Your task to perform on an android device: Open location settings Image 0: 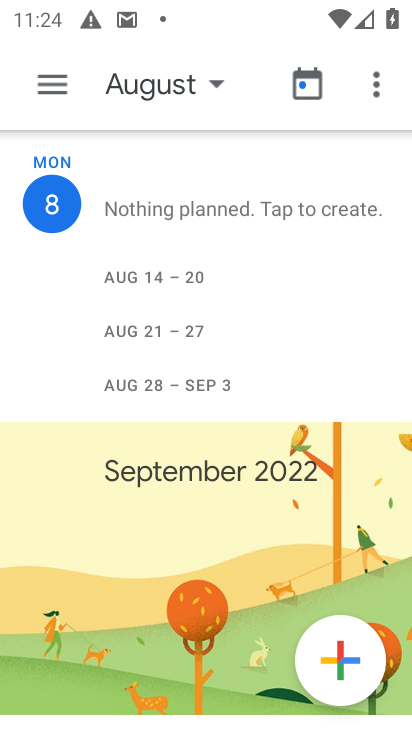
Step 0: press home button
Your task to perform on an android device: Open location settings Image 1: 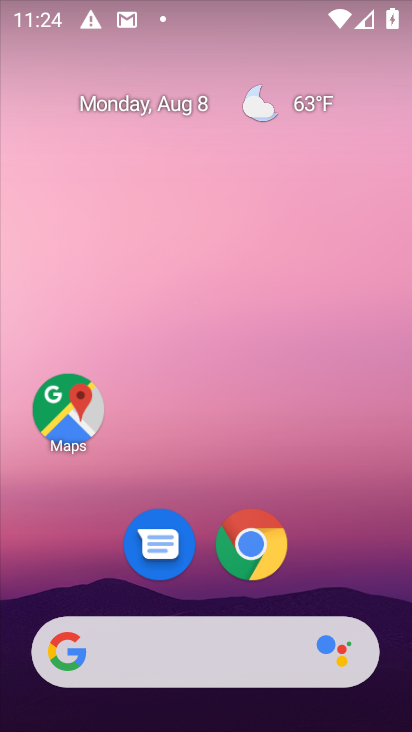
Step 1: drag from (201, 640) to (324, 23)
Your task to perform on an android device: Open location settings Image 2: 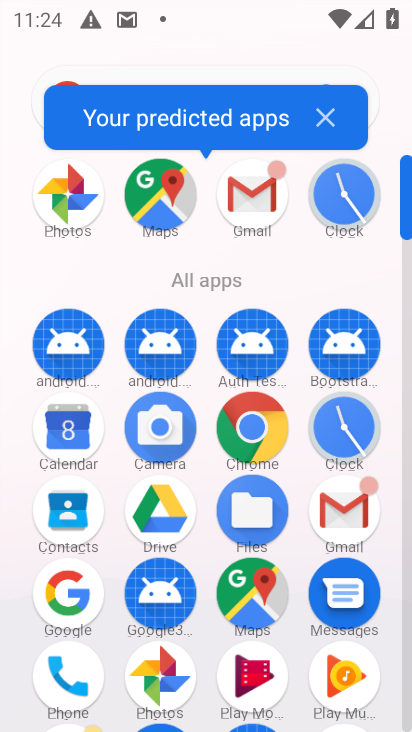
Step 2: drag from (299, 304) to (331, 147)
Your task to perform on an android device: Open location settings Image 3: 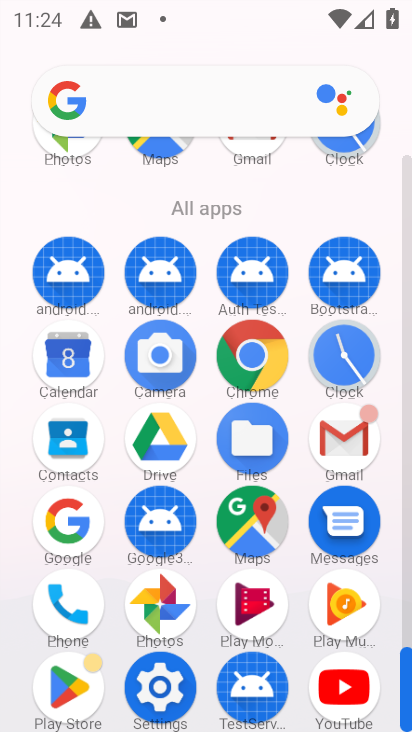
Step 3: click (161, 689)
Your task to perform on an android device: Open location settings Image 4: 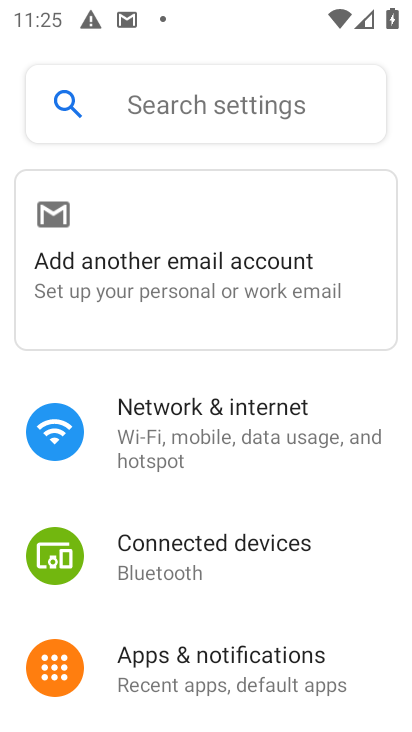
Step 4: drag from (155, 596) to (259, 454)
Your task to perform on an android device: Open location settings Image 5: 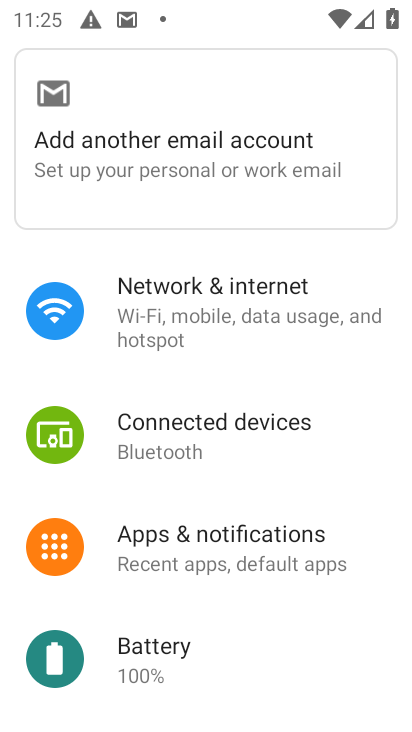
Step 5: drag from (194, 596) to (293, 464)
Your task to perform on an android device: Open location settings Image 6: 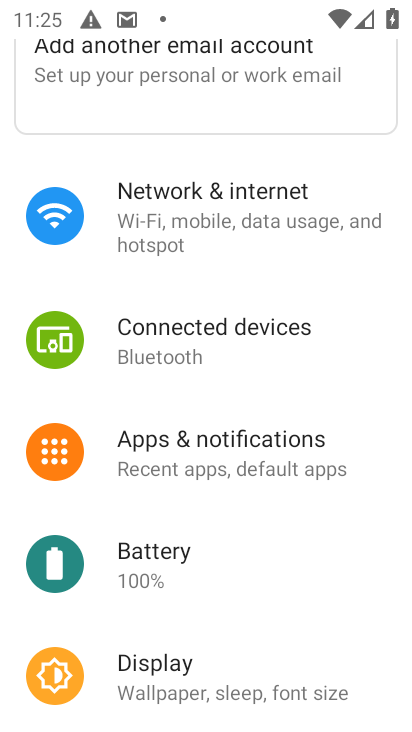
Step 6: drag from (192, 611) to (295, 465)
Your task to perform on an android device: Open location settings Image 7: 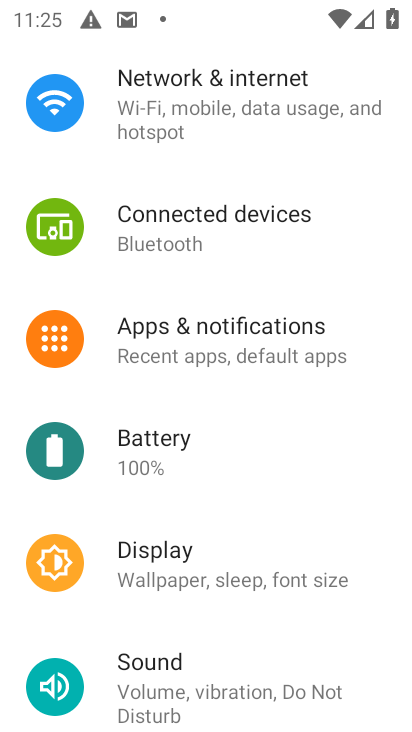
Step 7: drag from (200, 602) to (292, 455)
Your task to perform on an android device: Open location settings Image 8: 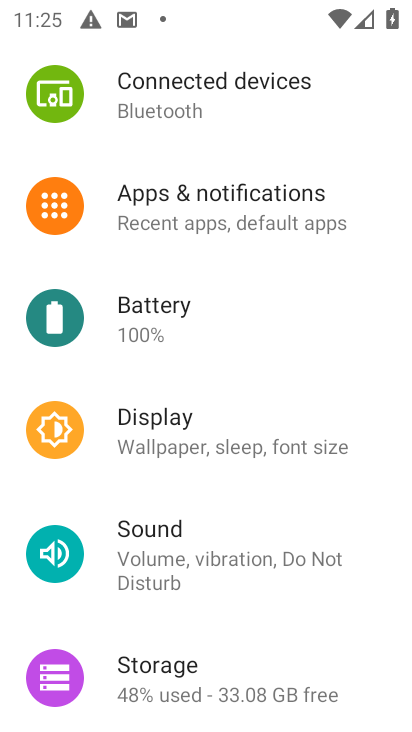
Step 8: drag from (197, 628) to (313, 443)
Your task to perform on an android device: Open location settings Image 9: 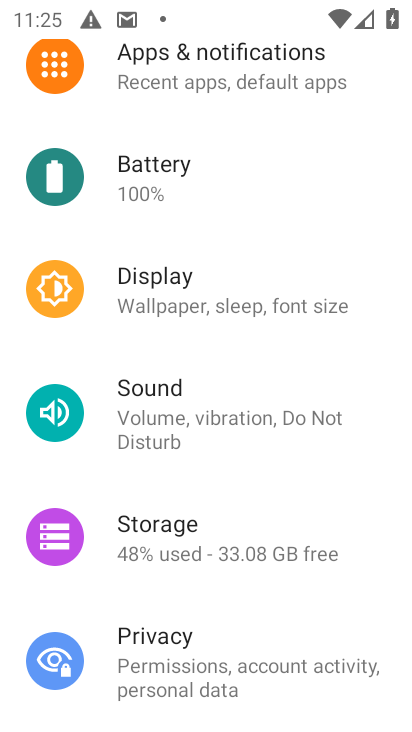
Step 9: drag from (177, 610) to (315, 433)
Your task to perform on an android device: Open location settings Image 10: 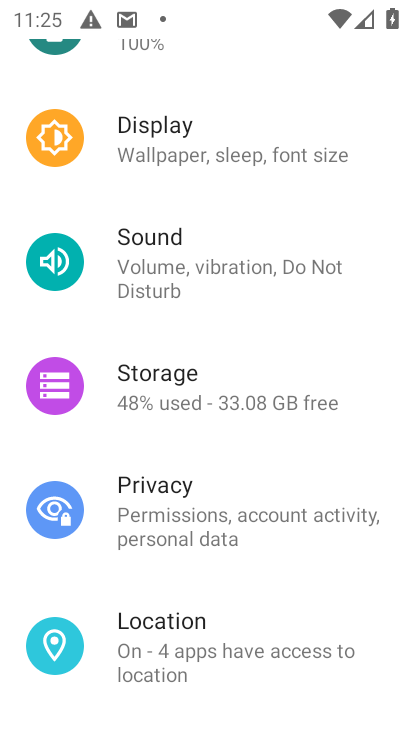
Step 10: click (182, 643)
Your task to perform on an android device: Open location settings Image 11: 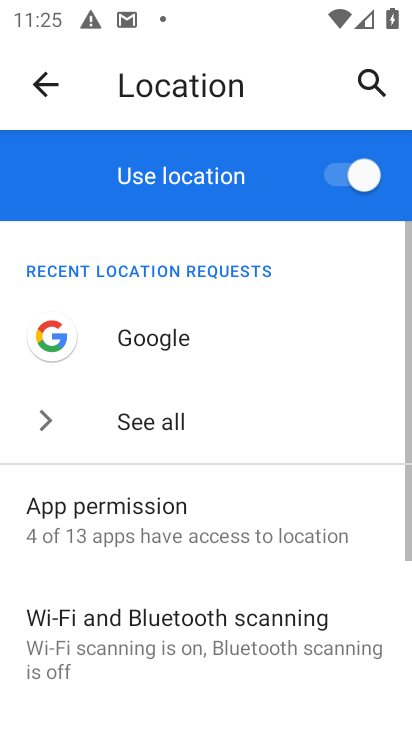
Step 11: task complete